Your task to perform on an android device: turn on javascript in the chrome app Image 0: 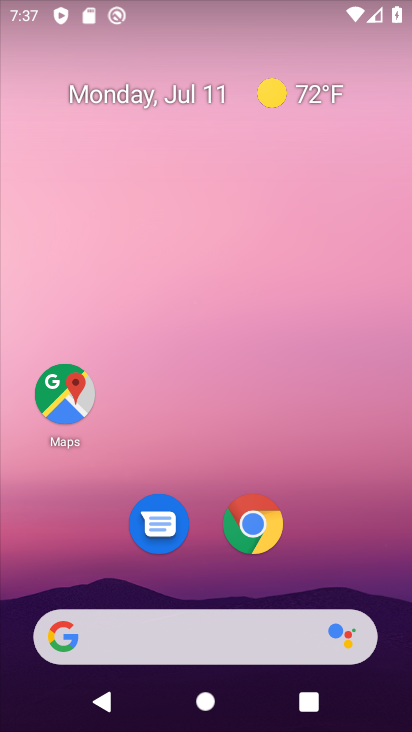
Step 0: click (259, 517)
Your task to perform on an android device: turn on javascript in the chrome app Image 1: 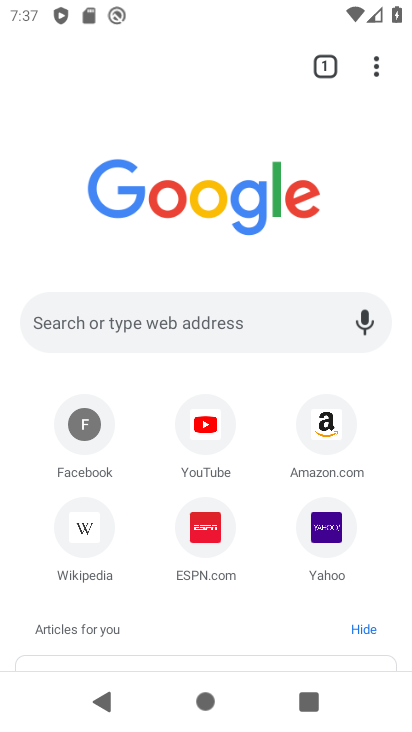
Step 1: click (377, 67)
Your task to perform on an android device: turn on javascript in the chrome app Image 2: 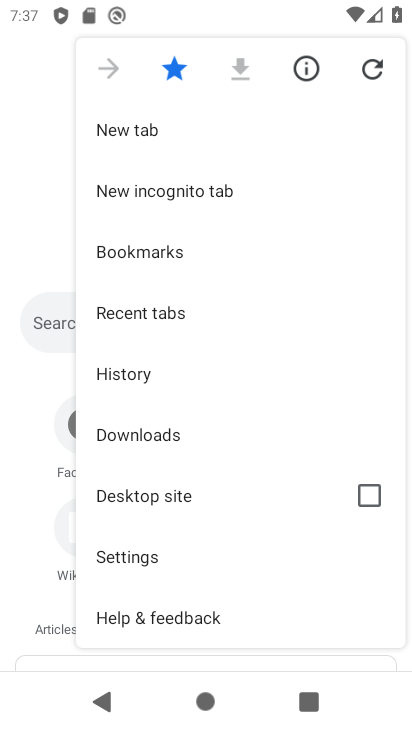
Step 2: click (148, 557)
Your task to perform on an android device: turn on javascript in the chrome app Image 3: 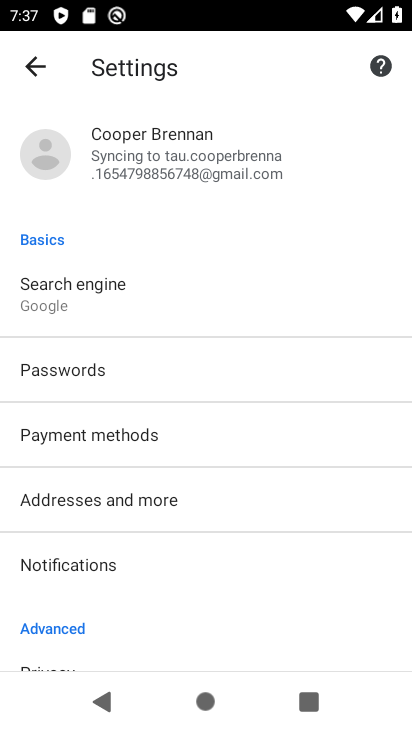
Step 3: drag from (199, 532) to (249, 244)
Your task to perform on an android device: turn on javascript in the chrome app Image 4: 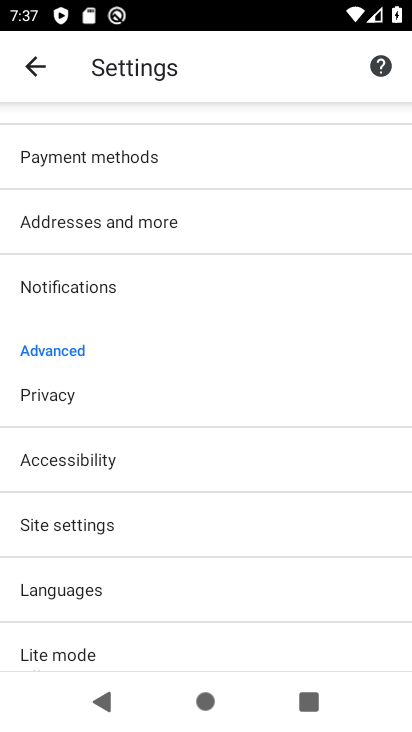
Step 4: click (87, 528)
Your task to perform on an android device: turn on javascript in the chrome app Image 5: 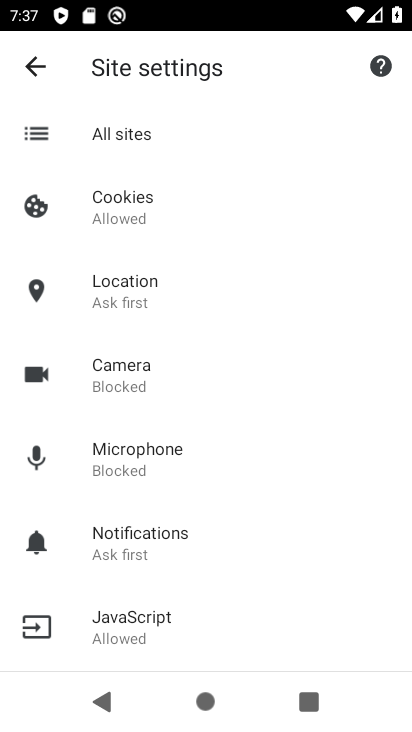
Step 5: click (128, 616)
Your task to perform on an android device: turn on javascript in the chrome app Image 6: 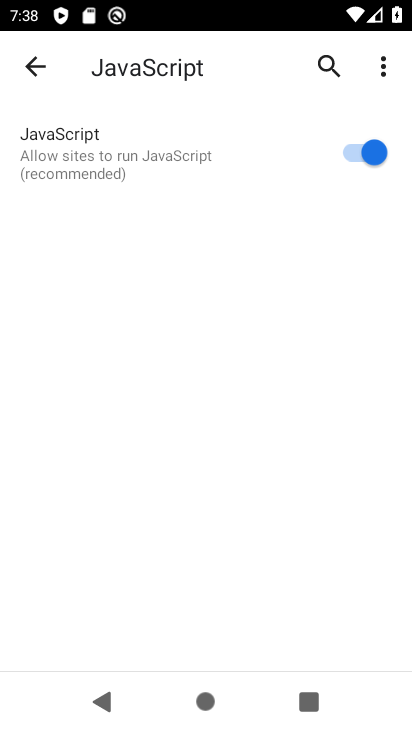
Step 6: task complete